Your task to perform on an android device: Set the phone to "Do not disturb". Image 0: 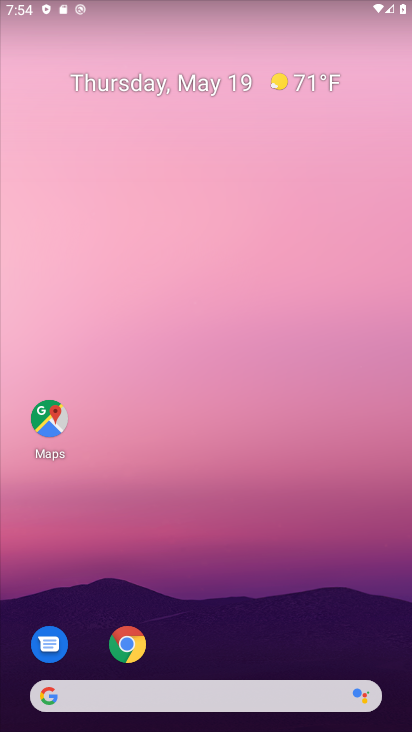
Step 0: press home button
Your task to perform on an android device: Set the phone to "Do not disturb". Image 1: 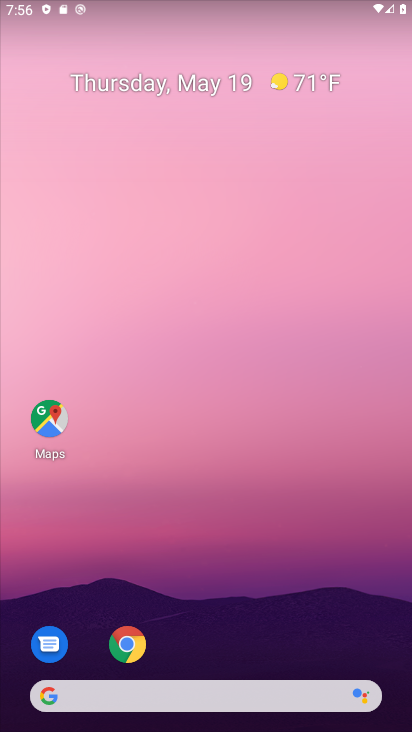
Step 1: drag from (214, 713) to (282, 178)
Your task to perform on an android device: Set the phone to "Do not disturb". Image 2: 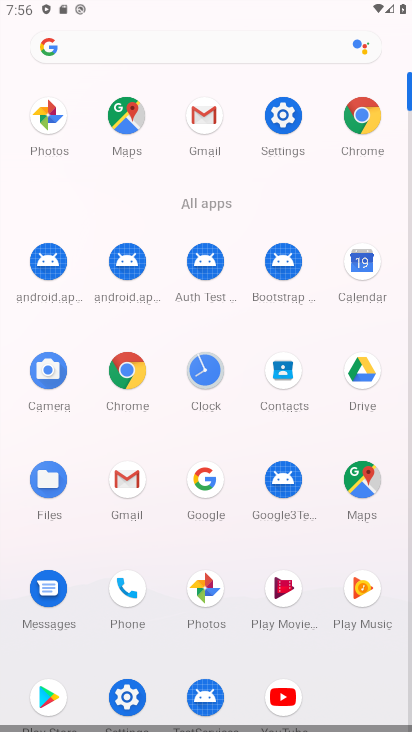
Step 2: click (281, 128)
Your task to perform on an android device: Set the phone to "Do not disturb". Image 3: 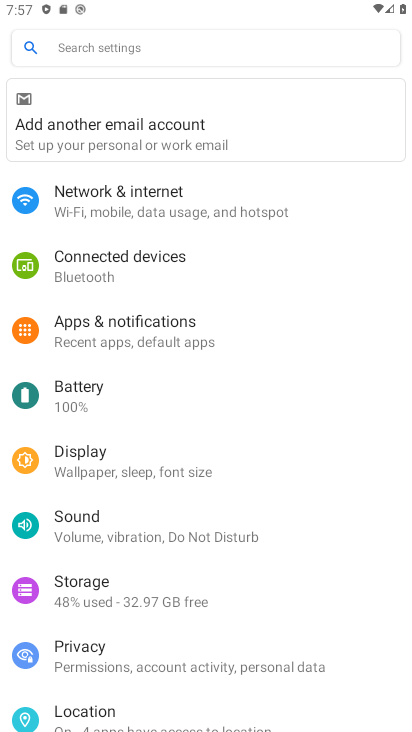
Step 3: click (182, 34)
Your task to perform on an android device: Set the phone to "Do not disturb". Image 4: 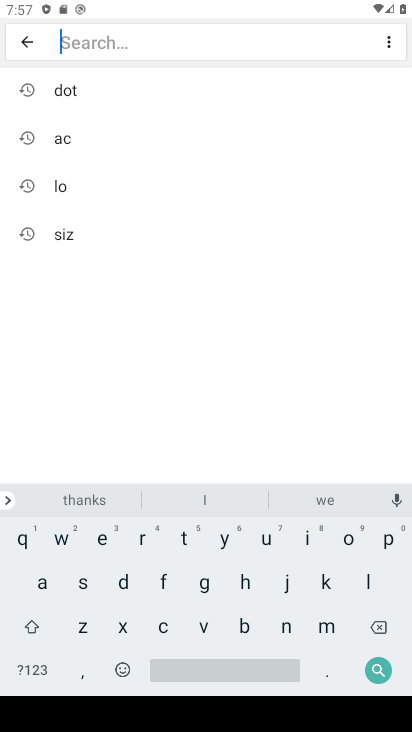
Step 4: click (122, 585)
Your task to perform on an android device: Set the phone to "Do not disturb". Image 5: 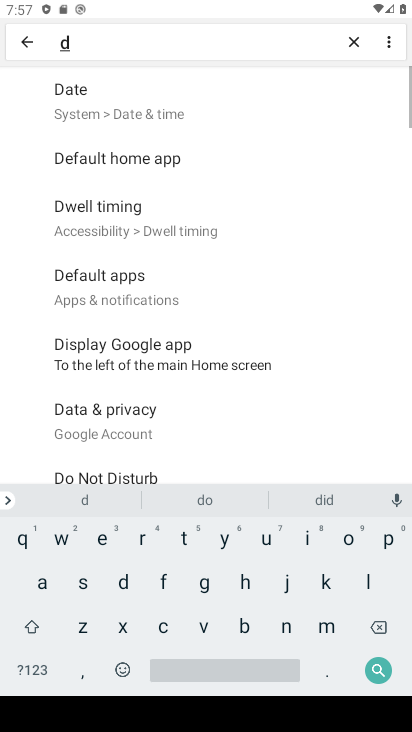
Step 5: click (284, 632)
Your task to perform on an android device: Set the phone to "Do not disturb". Image 6: 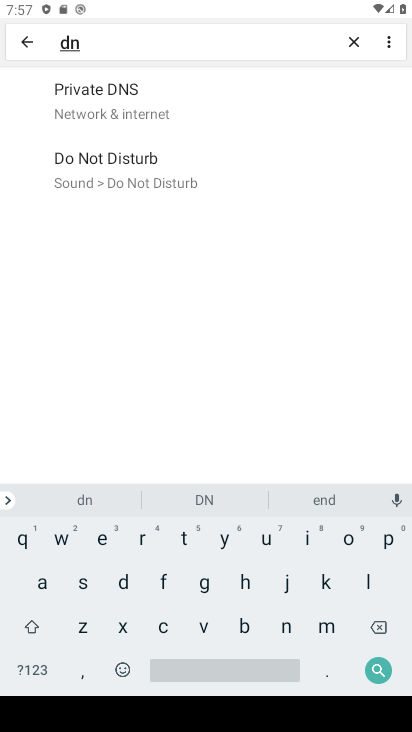
Step 6: click (122, 152)
Your task to perform on an android device: Set the phone to "Do not disturb". Image 7: 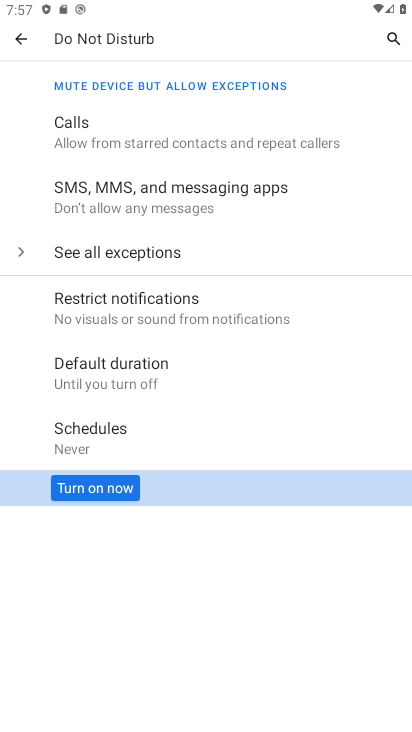
Step 7: click (71, 485)
Your task to perform on an android device: Set the phone to "Do not disturb". Image 8: 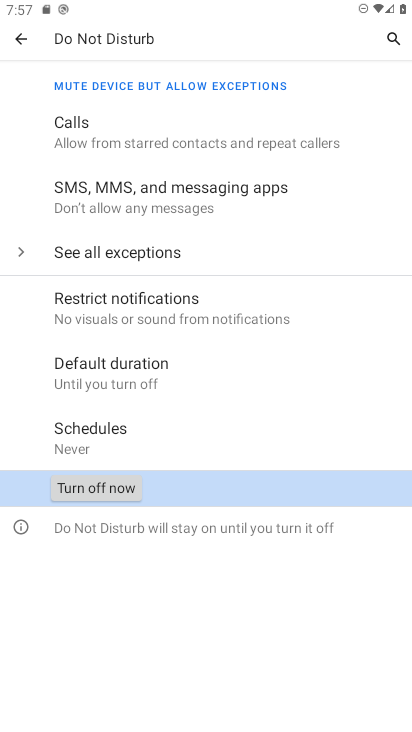
Step 8: task complete